Your task to perform on an android device: see sites visited before in the chrome app Image 0: 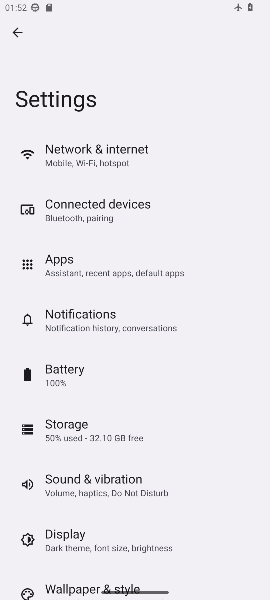
Step 0: press home button
Your task to perform on an android device: see sites visited before in the chrome app Image 1: 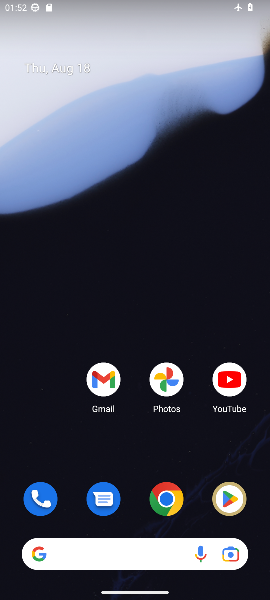
Step 1: click (164, 501)
Your task to perform on an android device: see sites visited before in the chrome app Image 2: 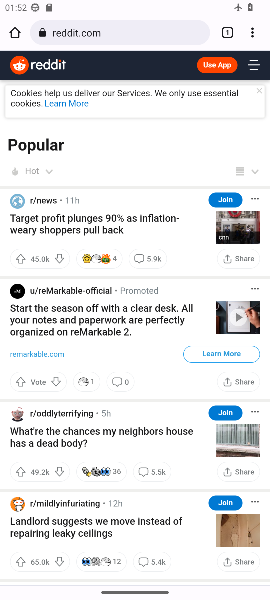
Step 2: click (254, 30)
Your task to perform on an android device: see sites visited before in the chrome app Image 3: 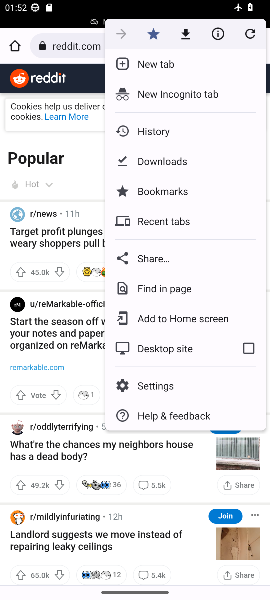
Step 3: click (157, 128)
Your task to perform on an android device: see sites visited before in the chrome app Image 4: 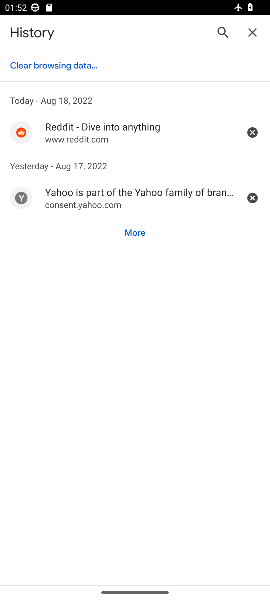
Step 4: task complete